Your task to perform on an android device: open wifi settings Image 0: 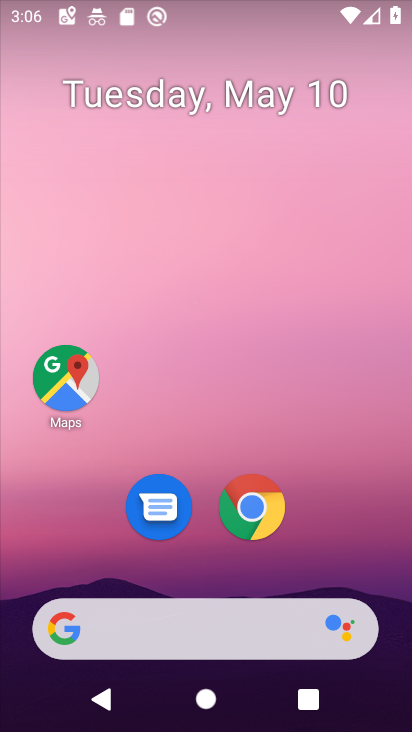
Step 0: click (263, 233)
Your task to perform on an android device: open wifi settings Image 1: 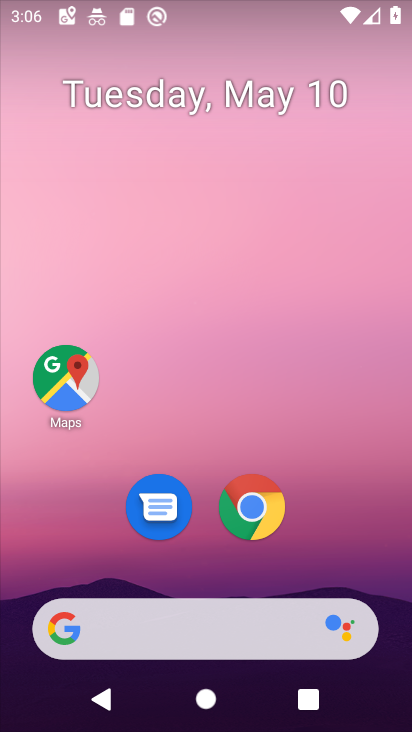
Step 1: drag from (183, 573) to (250, 139)
Your task to perform on an android device: open wifi settings Image 2: 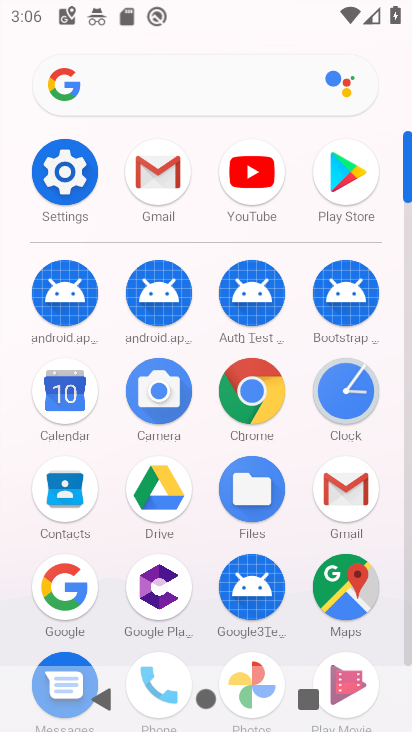
Step 2: click (64, 178)
Your task to perform on an android device: open wifi settings Image 3: 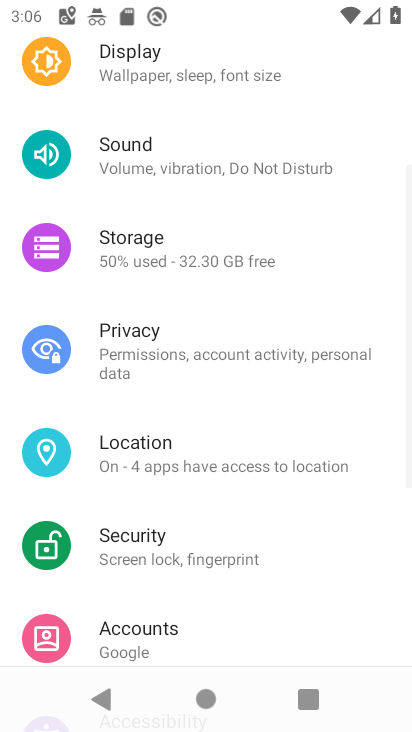
Step 3: drag from (190, 119) to (214, 504)
Your task to perform on an android device: open wifi settings Image 4: 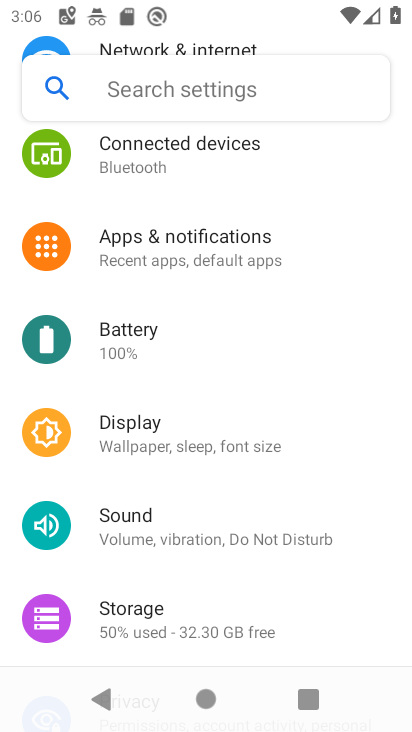
Step 4: drag from (234, 184) to (258, 573)
Your task to perform on an android device: open wifi settings Image 5: 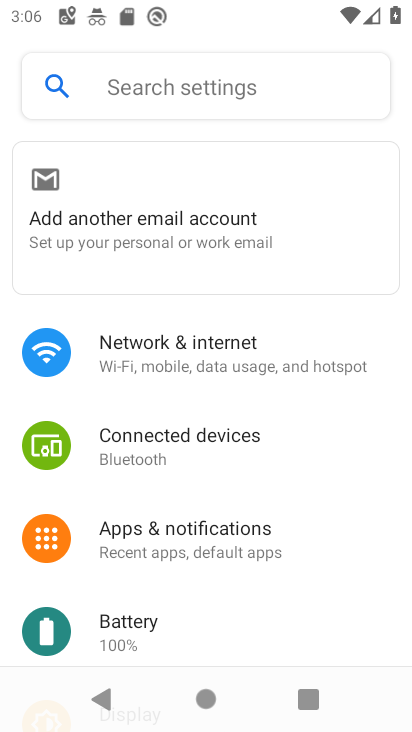
Step 5: click (179, 362)
Your task to perform on an android device: open wifi settings Image 6: 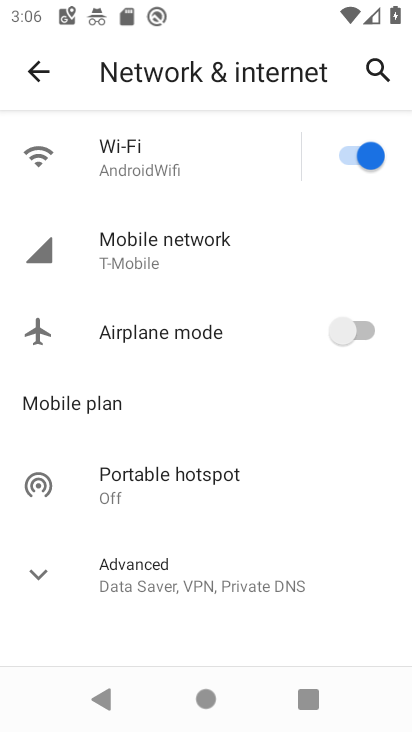
Step 6: click (179, 153)
Your task to perform on an android device: open wifi settings Image 7: 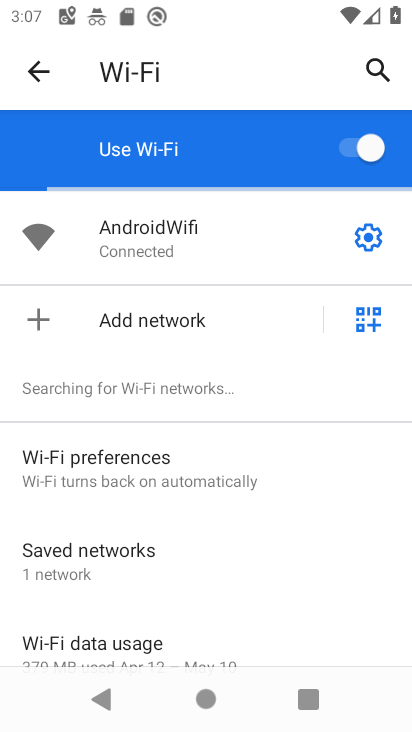
Step 7: task complete